Your task to perform on an android device: find photos in the google photos app Image 0: 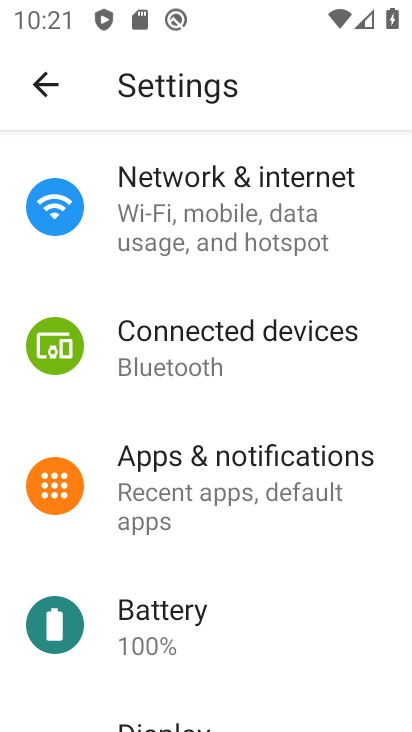
Step 0: press home button
Your task to perform on an android device: find photos in the google photos app Image 1: 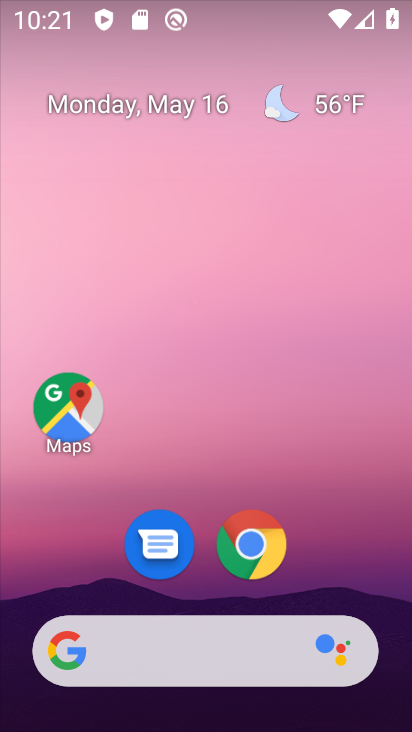
Step 1: drag from (103, 612) to (203, 208)
Your task to perform on an android device: find photos in the google photos app Image 2: 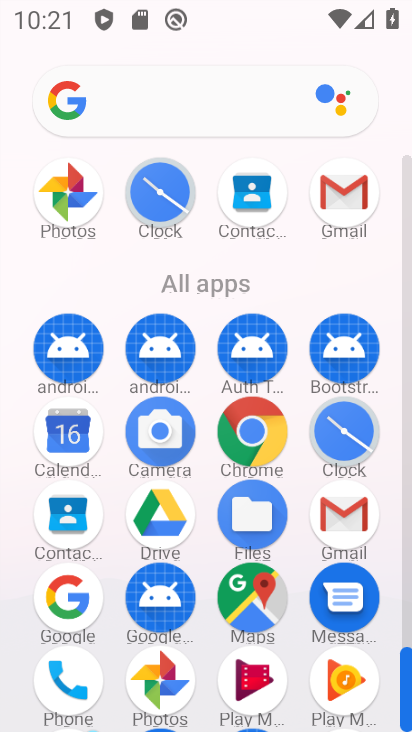
Step 2: drag from (171, 665) to (223, 436)
Your task to perform on an android device: find photos in the google photos app Image 3: 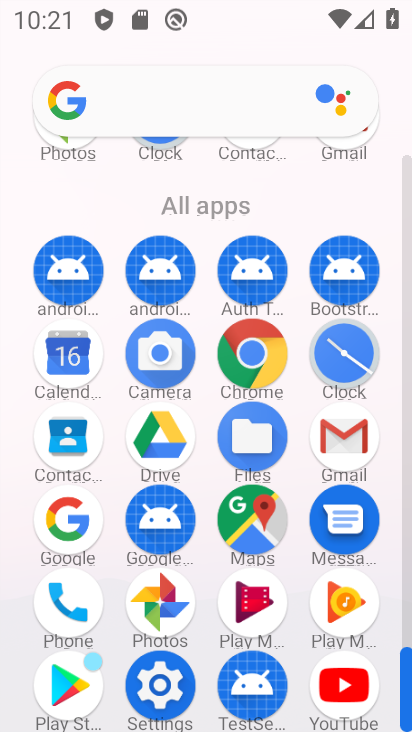
Step 3: click (157, 613)
Your task to perform on an android device: find photos in the google photos app Image 4: 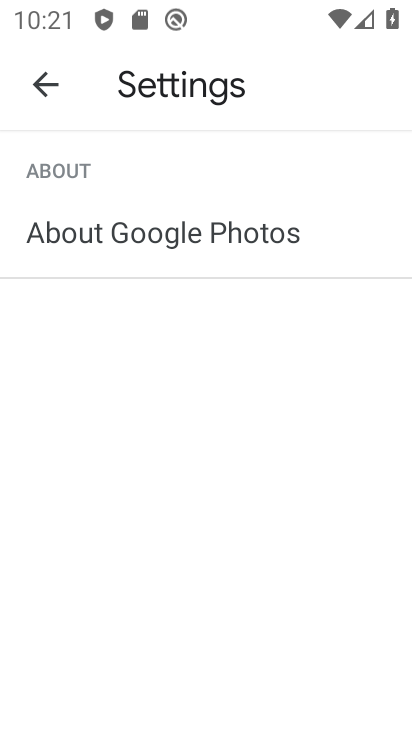
Step 4: task complete